Your task to perform on an android device: Search for pizza restaurants on Maps Image 0: 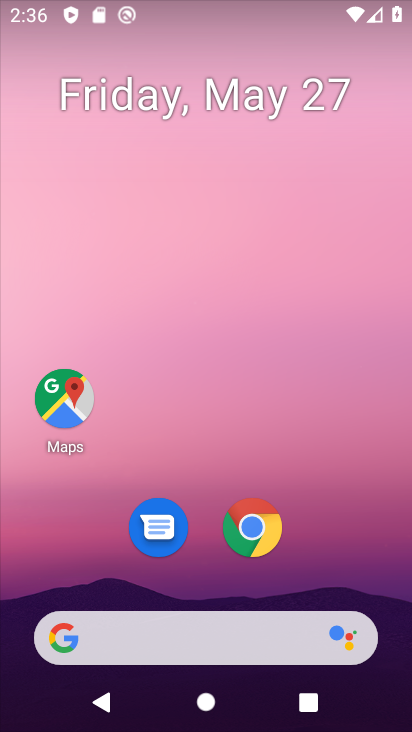
Step 0: click (264, 517)
Your task to perform on an android device: Search for pizza restaurants on Maps Image 1: 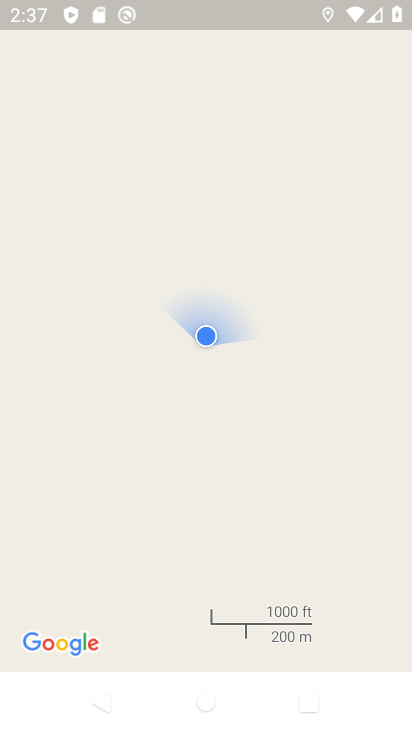
Step 1: press home button
Your task to perform on an android device: Search for pizza restaurants on Maps Image 2: 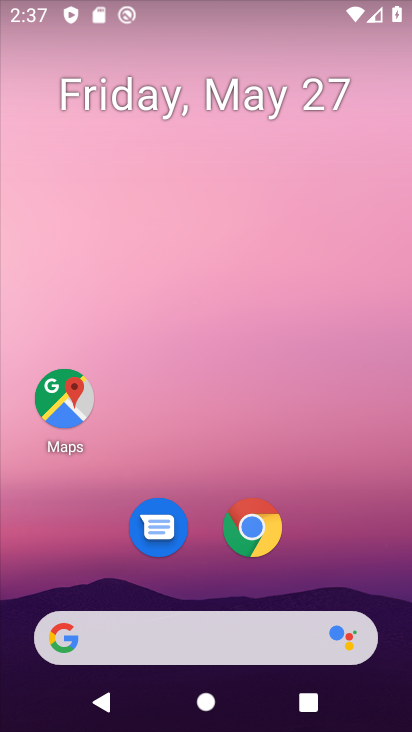
Step 2: click (245, 531)
Your task to perform on an android device: Search for pizza restaurants on Maps Image 3: 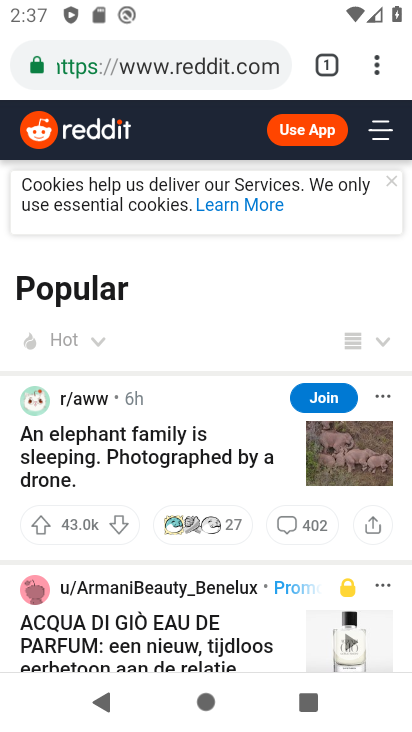
Step 3: task complete